Your task to perform on an android device: Open network settings Image 0: 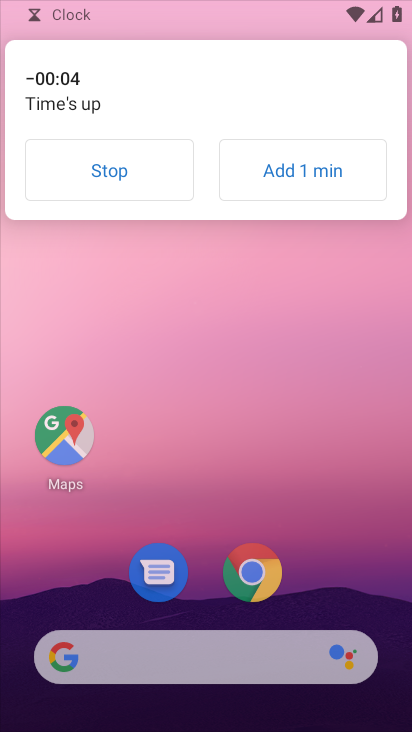
Step 0: click (112, 176)
Your task to perform on an android device: Open network settings Image 1: 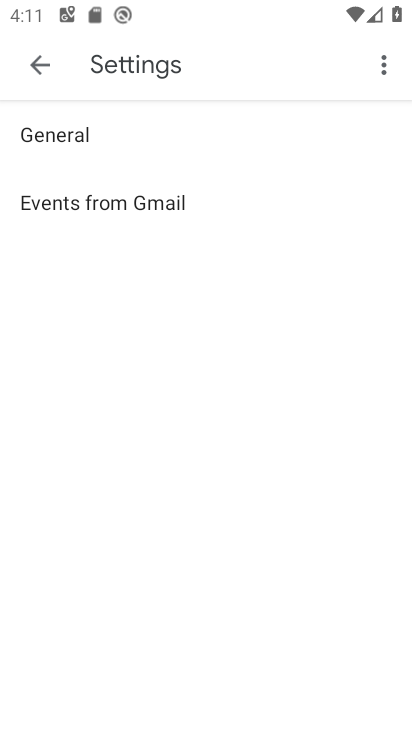
Step 1: press home button
Your task to perform on an android device: Open network settings Image 2: 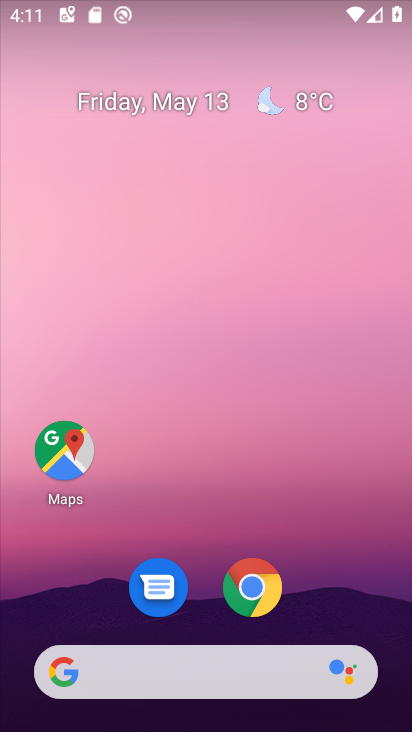
Step 2: drag from (193, 622) to (217, 274)
Your task to perform on an android device: Open network settings Image 3: 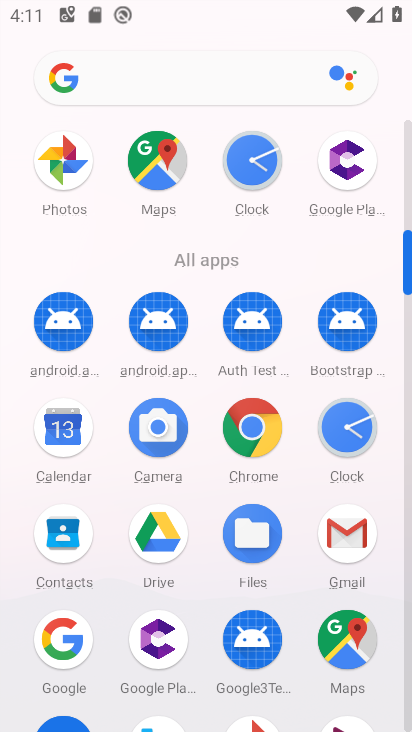
Step 3: drag from (206, 518) to (195, 280)
Your task to perform on an android device: Open network settings Image 4: 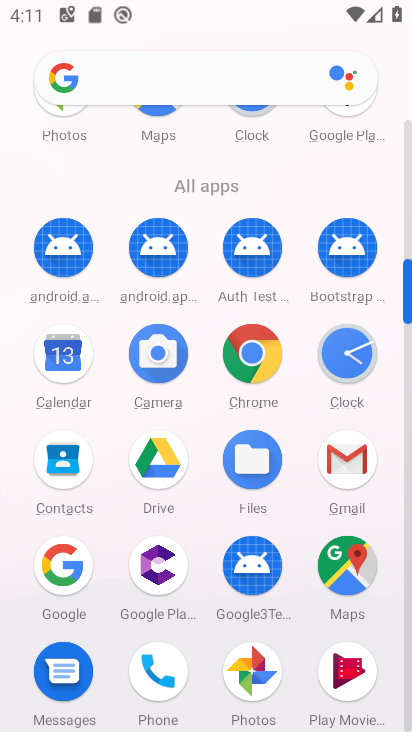
Step 4: drag from (189, 544) to (183, 309)
Your task to perform on an android device: Open network settings Image 5: 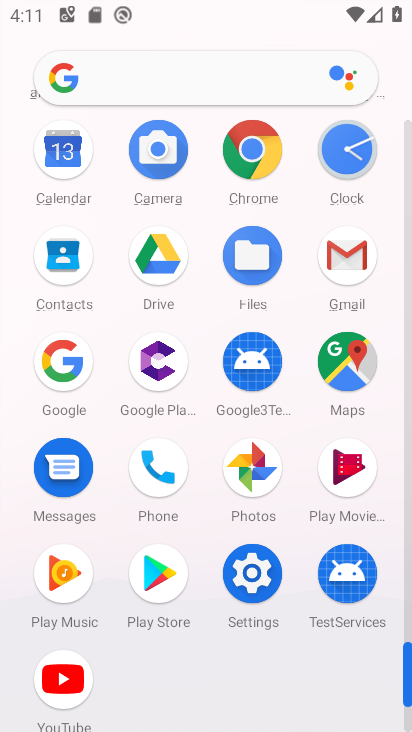
Step 5: click (228, 544)
Your task to perform on an android device: Open network settings Image 6: 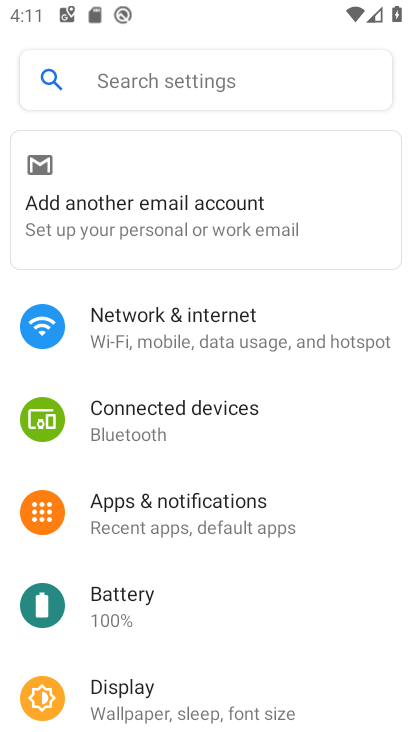
Step 6: click (153, 328)
Your task to perform on an android device: Open network settings Image 7: 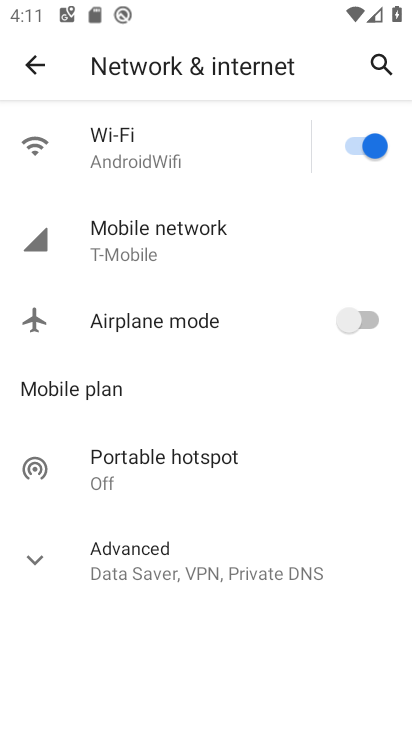
Step 7: click (162, 234)
Your task to perform on an android device: Open network settings Image 8: 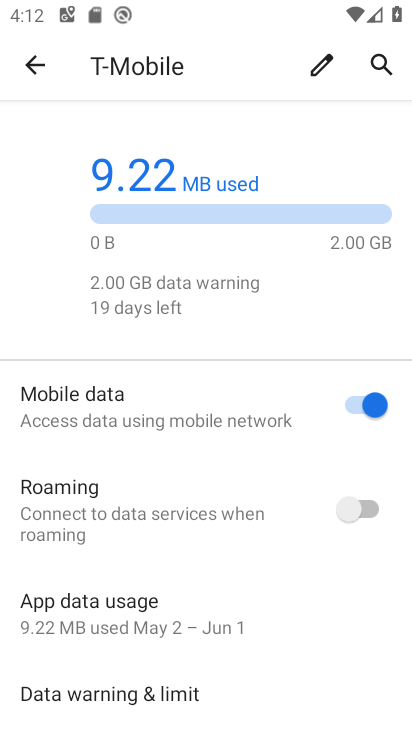
Step 8: task complete